Your task to perform on an android device: Show me the alarms in the clock app Image 0: 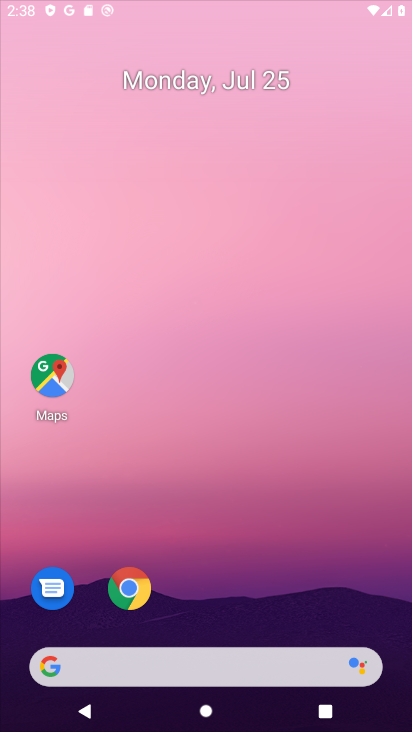
Step 0: press home button
Your task to perform on an android device: Show me the alarms in the clock app Image 1: 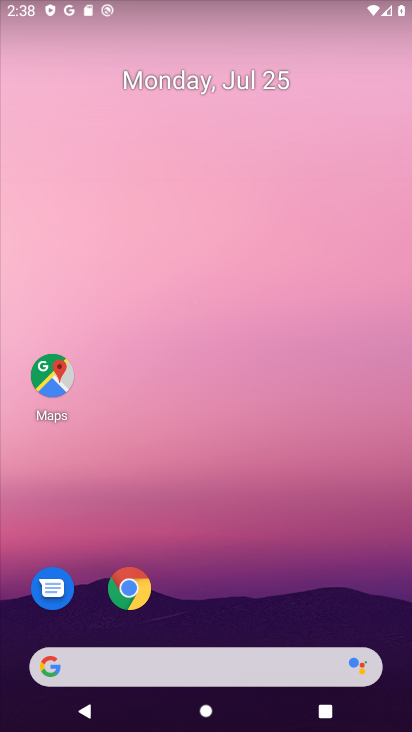
Step 1: drag from (218, 597) to (206, 38)
Your task to perform on an android device: Show me the alarms in the clock app Image 2: 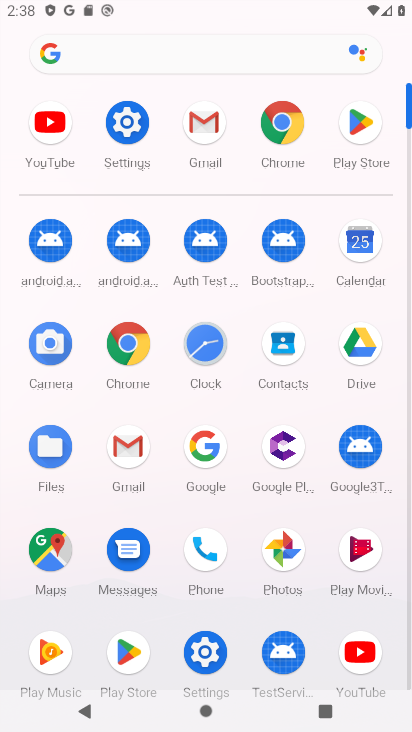
Step 2: click (201, 339)
Your task to perform on an android device: Show me the alarms in the clock app Image 3: 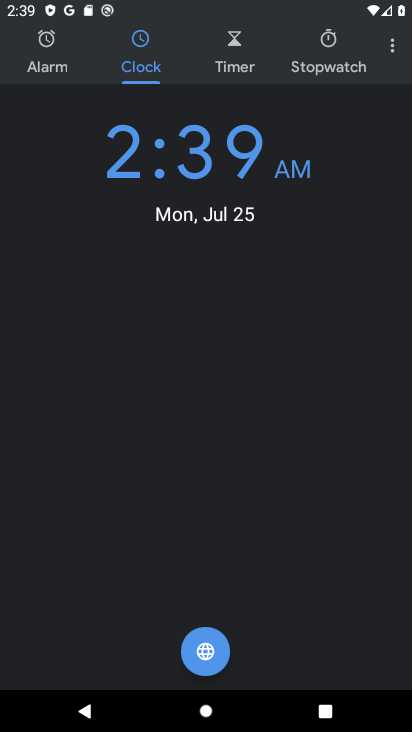
Step 3: click (49, 44)
Your task to perform on an android device: Show me the alarms in the clock app Image 4: 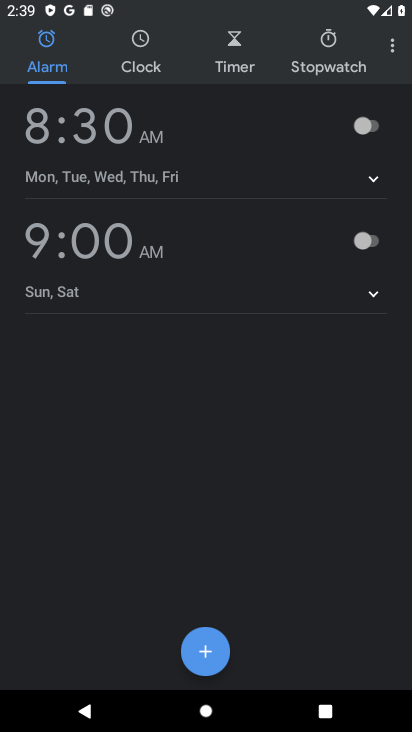
Step 4: click (369, 125)
Your task to perform on an android device: Show me the alarms in the clock app Image 5: 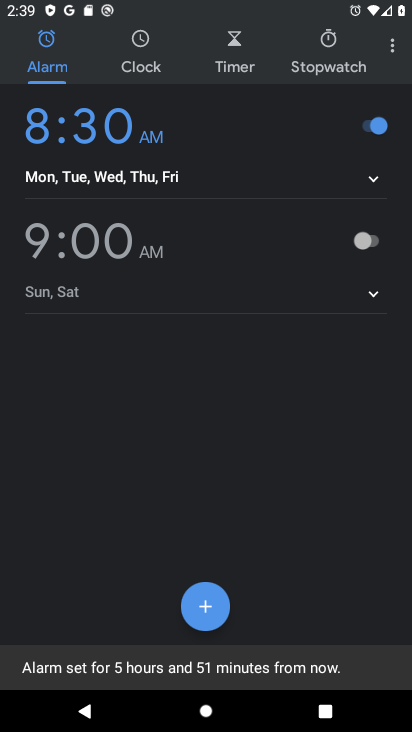
Step 5: task complete